Your task to perform on an android device: star an email in the gmail app Image 0: 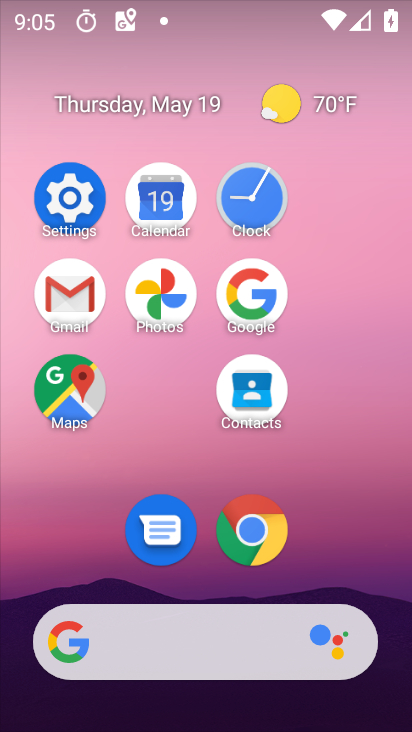
Step 0: click (79, 298)
Your task to perform on an android device: star an email in the gmail app Image 1: 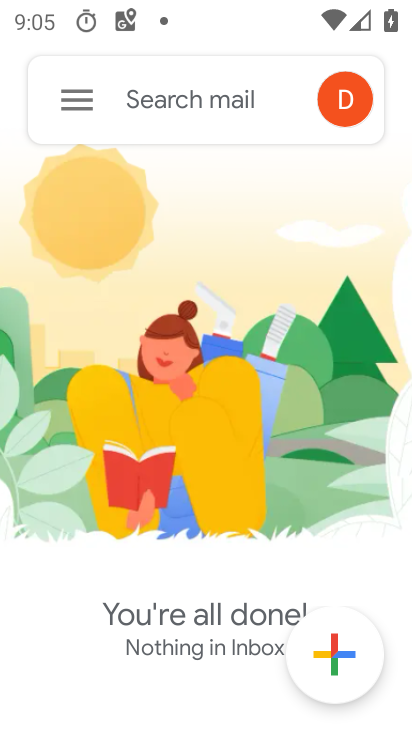
Step 1: click (67, 112)
Your task to perform on an android device: star an email in the gmail app Image 2: 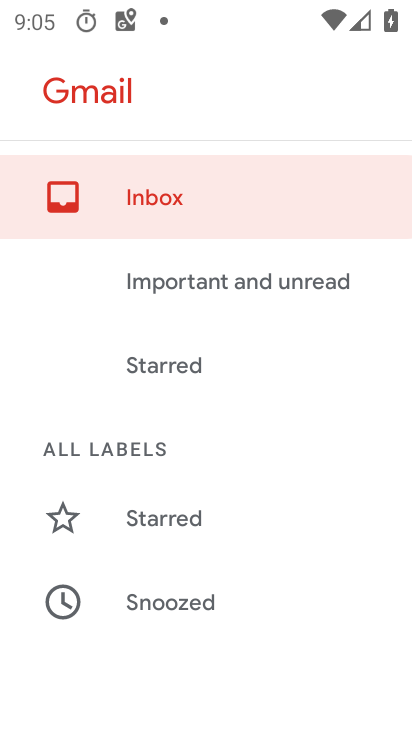
Step 2: drag from (207, 560) to (274, 136)
Your task to perform on an android device: star an email in the gmail app Image 3: 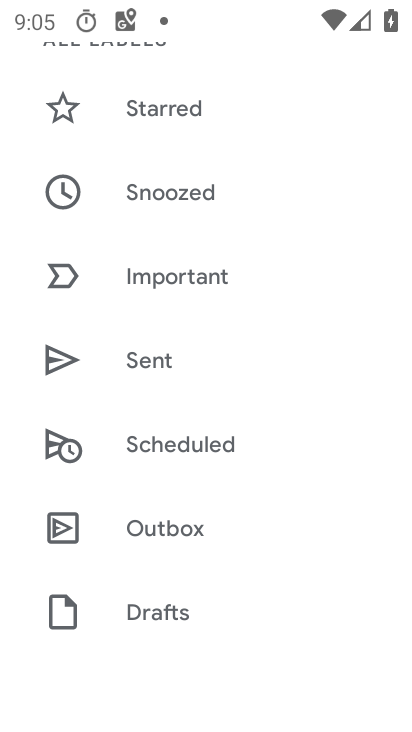
Step 3: drag from (252, 442) to (258, 193)
Your task to perform on an android device: star an email in the gmail app Image 4: 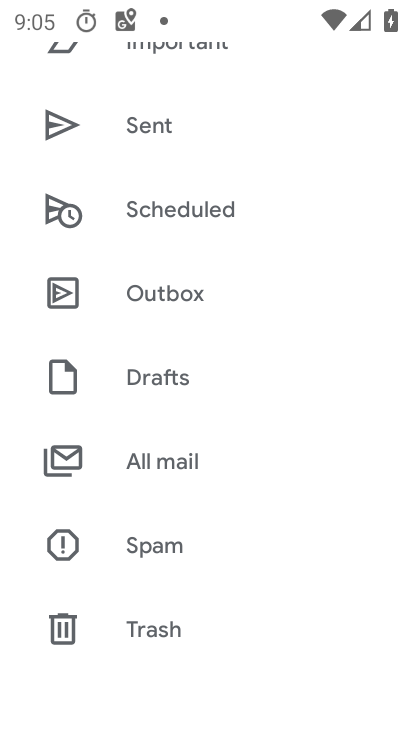
Step 4: click (246, 491)
Your task to perform on an android device: star an email in the gmail app Image 5: 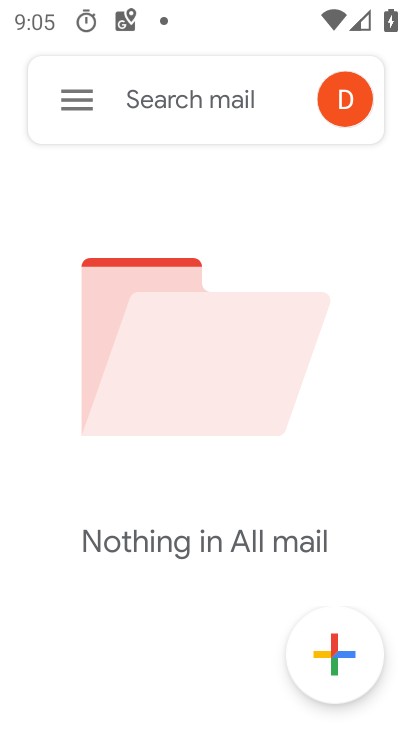
Step 5: task complete